Your task to perform on an android device: Open Yahoo.com Image 0: 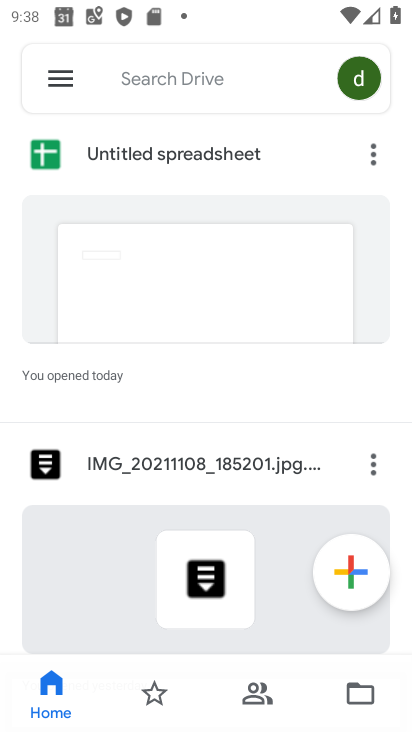
Step 0: press home button
Your task to perform on an android device: Open Yahoo.com Image 1: 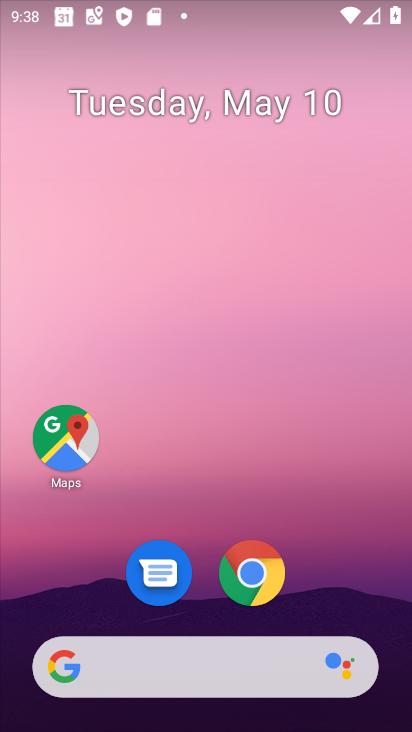
Step 1: click (258, 572)
Your task to perform on an android device: Open Yahoo.com Image 2: 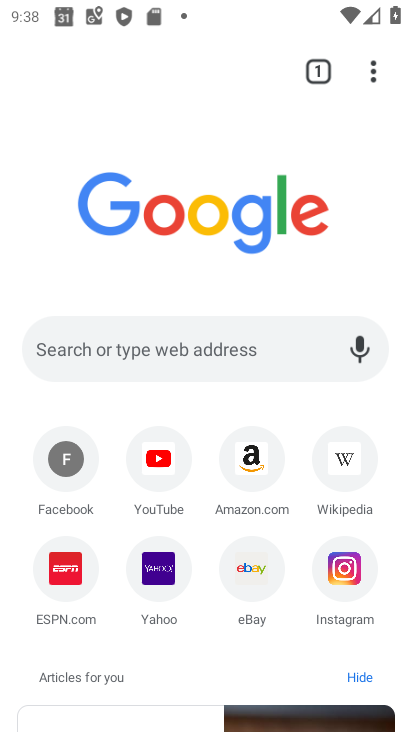
Step 2: click (150, 561)
Your task to perform on an android device: Open Yahoo.com Image 3: 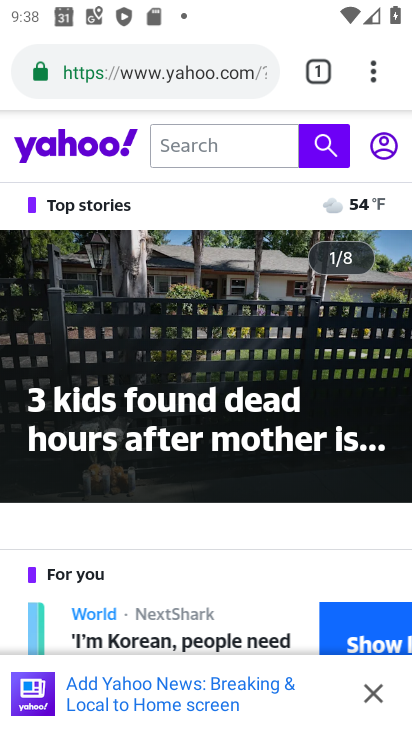
Step 3: task complete